Your task to perform on an android device: Search for the ikea sjalv lamp Image 0: 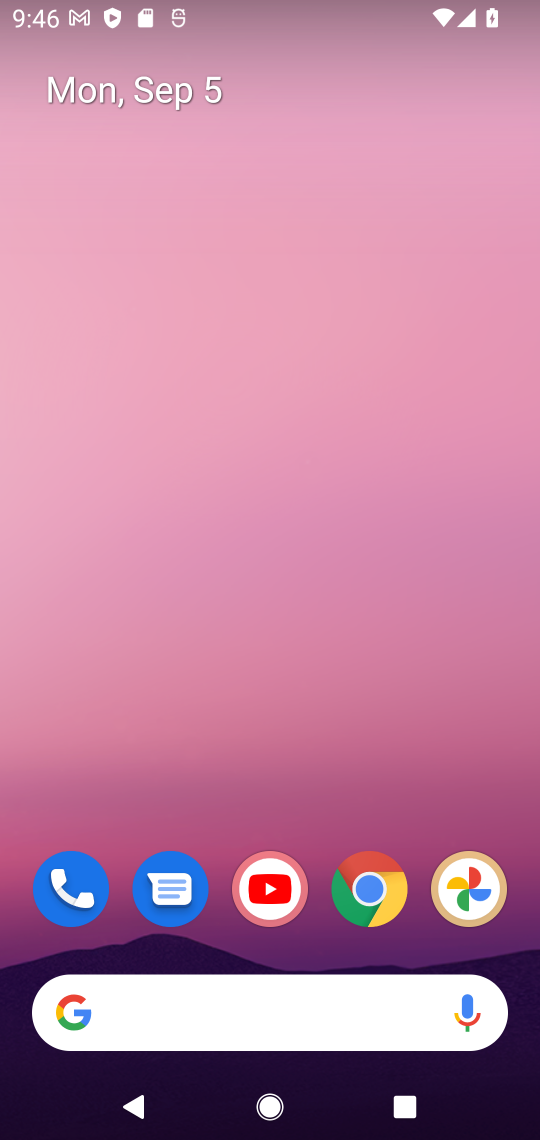
Step 0: click (205, 1019)
Your task to perform on an android device: Search for the ikea sjalv lamp Image 1: 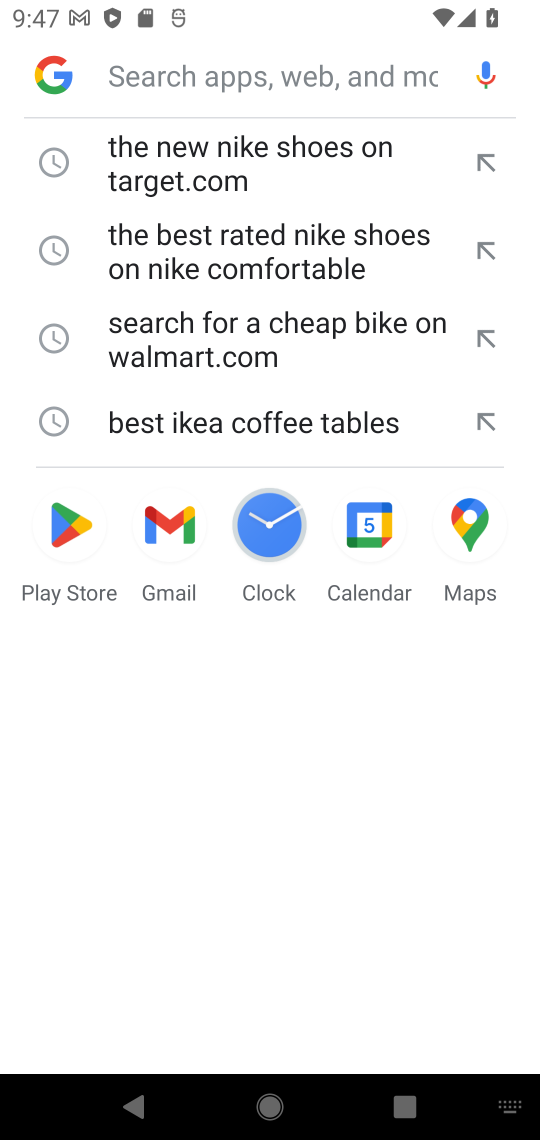
Step 1: type "the ikea sjalv lamp"
Your task to perform on an android device: Search for the ikea sjalv lamp Image 2: 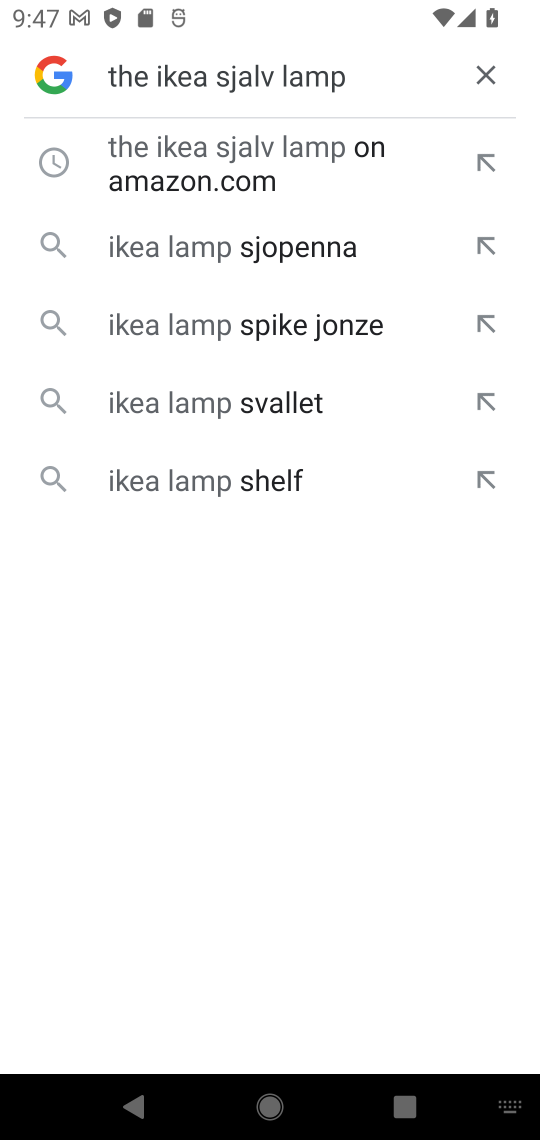
Step 2: click (203, 155)
Your task to perform on an android device: Search for the ikea sjalv lamp Image 3: 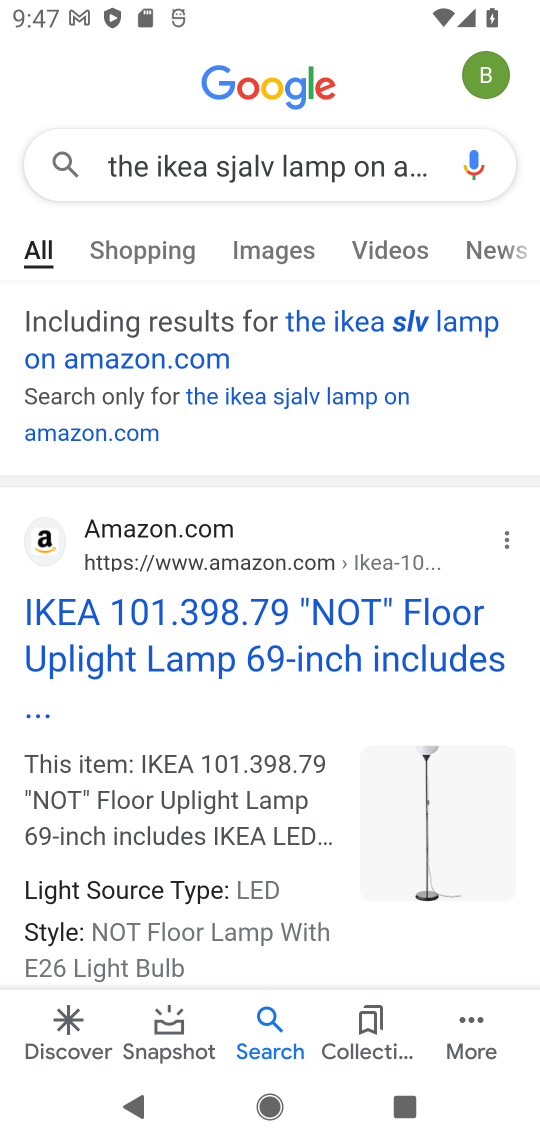
Step 3: click (295, 613)
Your task to perform on an android device: Search for the ikea sjalv lamp Image 4: 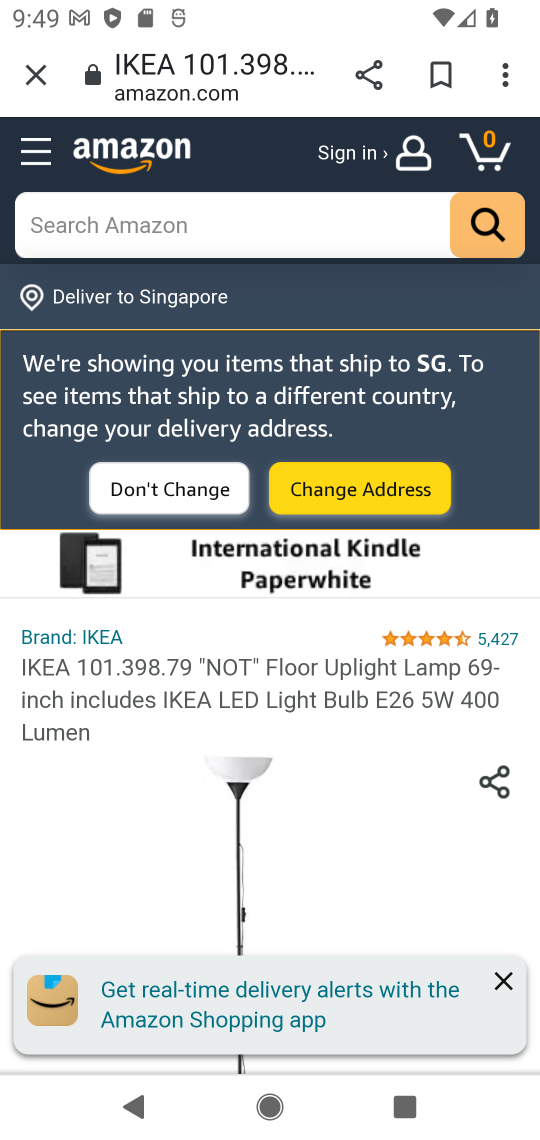
Step 4: task complete